Your task to perform on an android device: Go to Wikipedia Image 0: 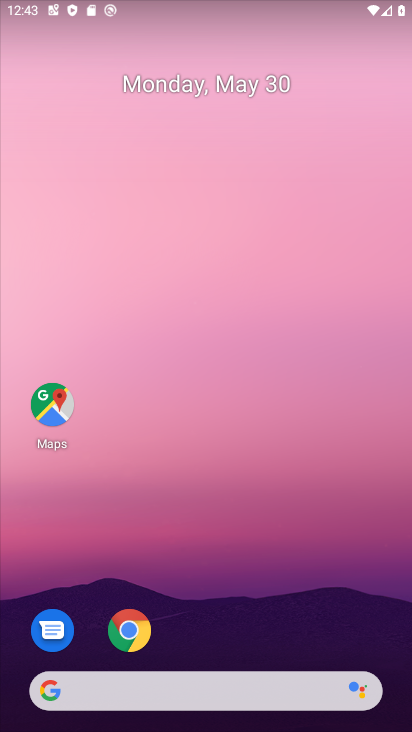
Step 0: click (114, 626)
Your task to perform on an android device: Go to Wikipedia Image 1: 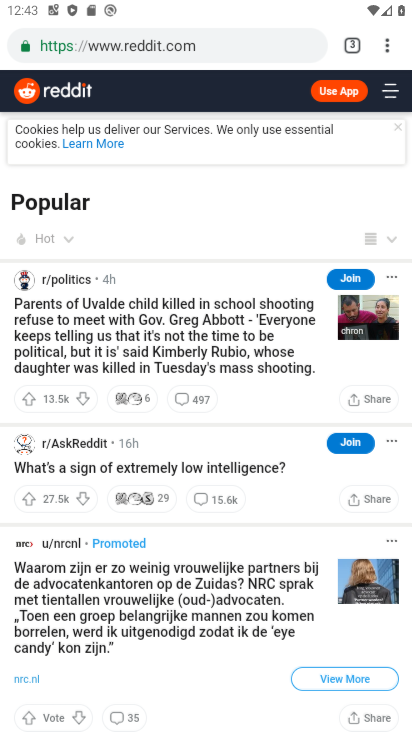
Step 1: drag from (384, 49) to (321, 137)
Your task to perform on an android device: Go to Wikipedia Image 2: 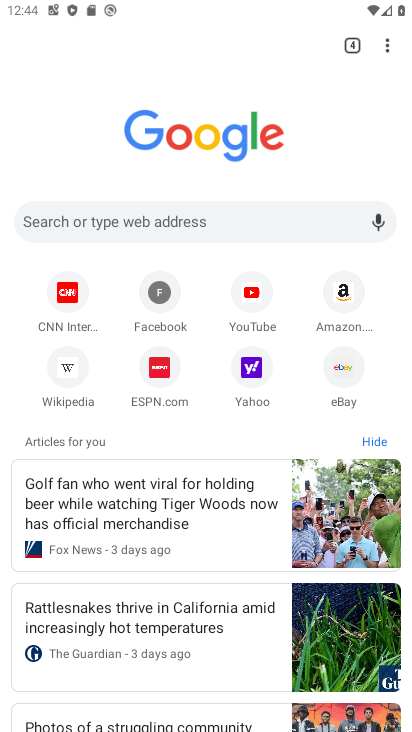
Step 2: click (72, 381)
Your task to perform on an android device: Go to Wikipedia Image 3: 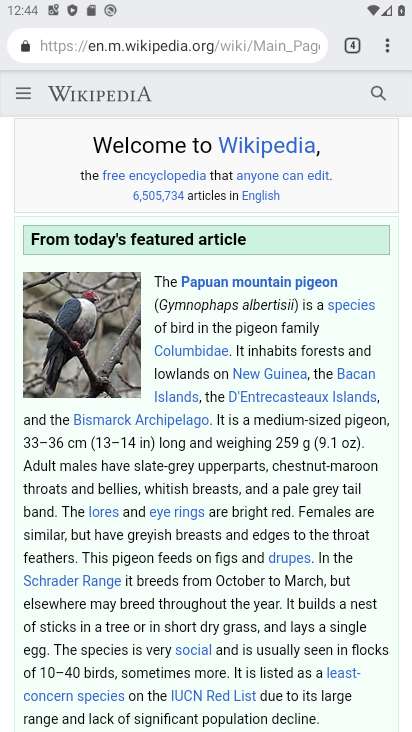
Step 3: task complete